Your task to perform on an android device: read, delete, or share a saved page in the chrome app Image 0: 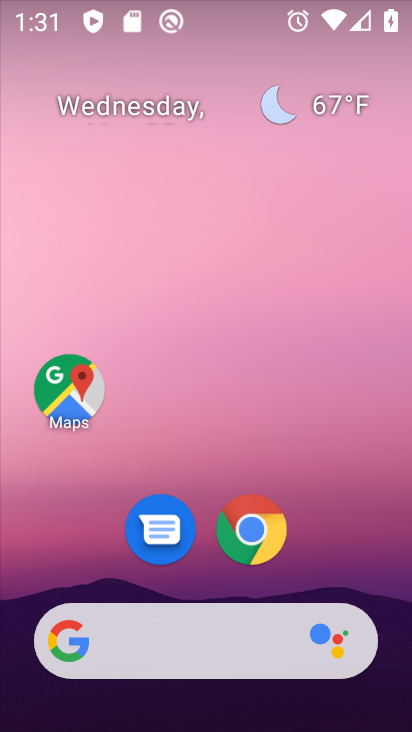
Step 0: click (252, 533)
Your task to perform on an android device: read, delete, or share a saved page in the chrome app Image 1: 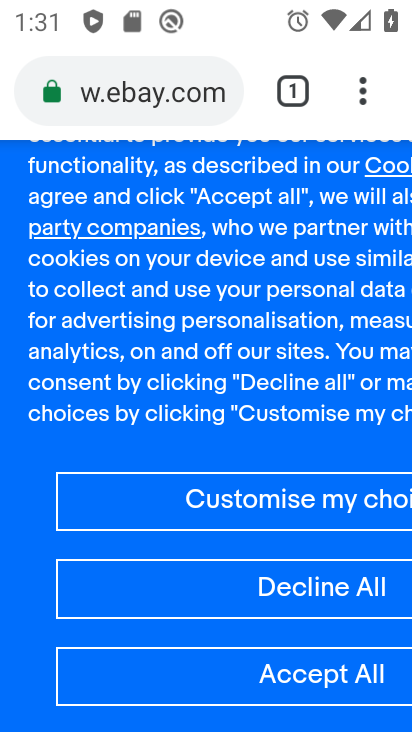
Step 1: click (364, 90)
Your task to perform on an android device: read, delete, or share a saved page in the chrome app Image 2: 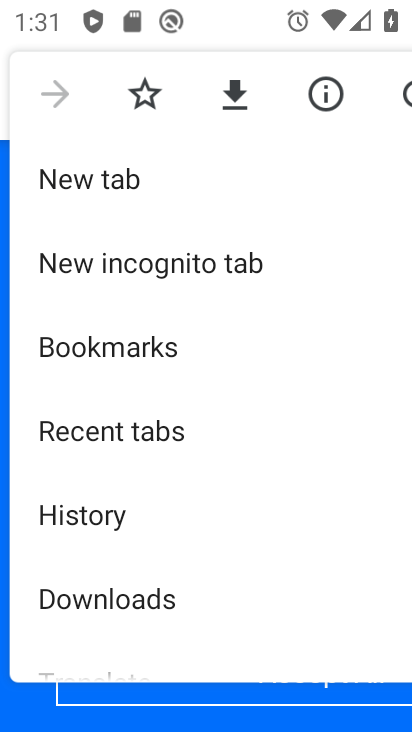
Step 2: click (135, 588)
Your task to perform on an android device: read, delete, or share a saved page in the chrome app Image 3: 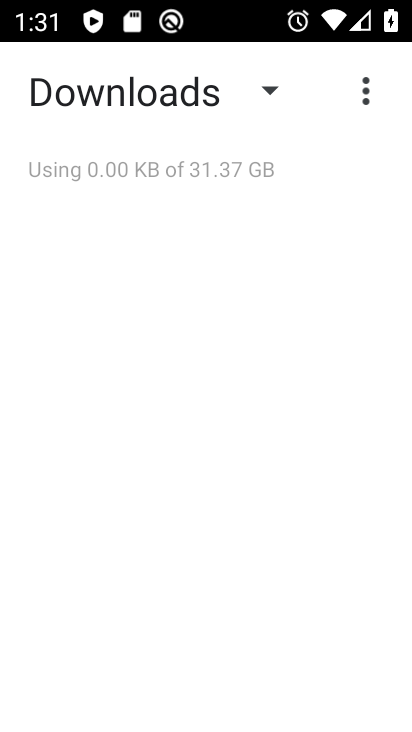
Step 3: click (280, 84)
Your task to perform on an android device: read, delete, or share a saved page in the chrome app Image 4: 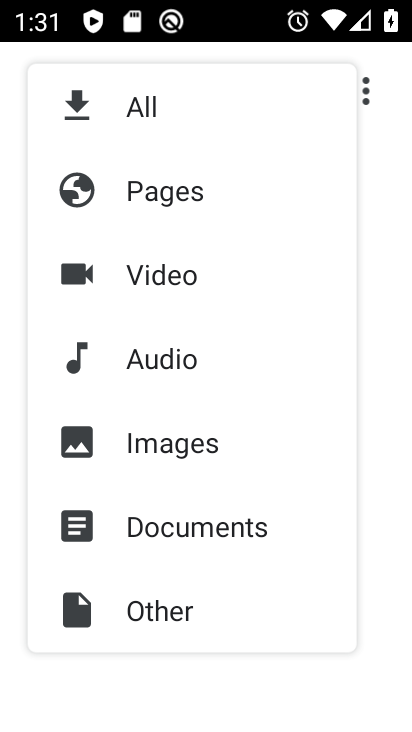
Step 4: click (194, 186)
Your task to perform on an android device: read, delete, or share a saved page in the chrome app Image 5: 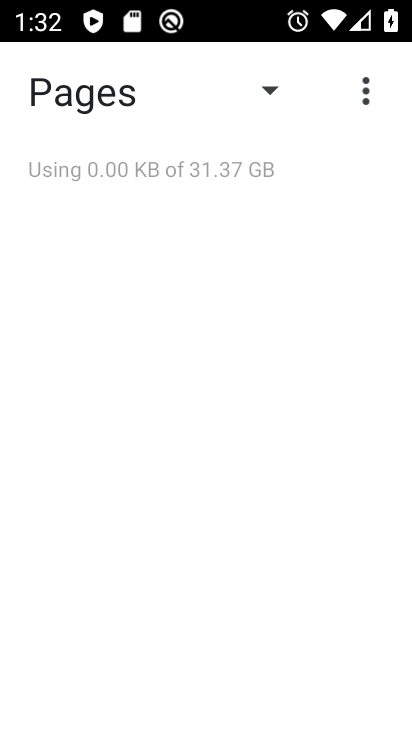
Step 5: task complete